Your task to perform on an android device: search for console tables on article.com Image 0: 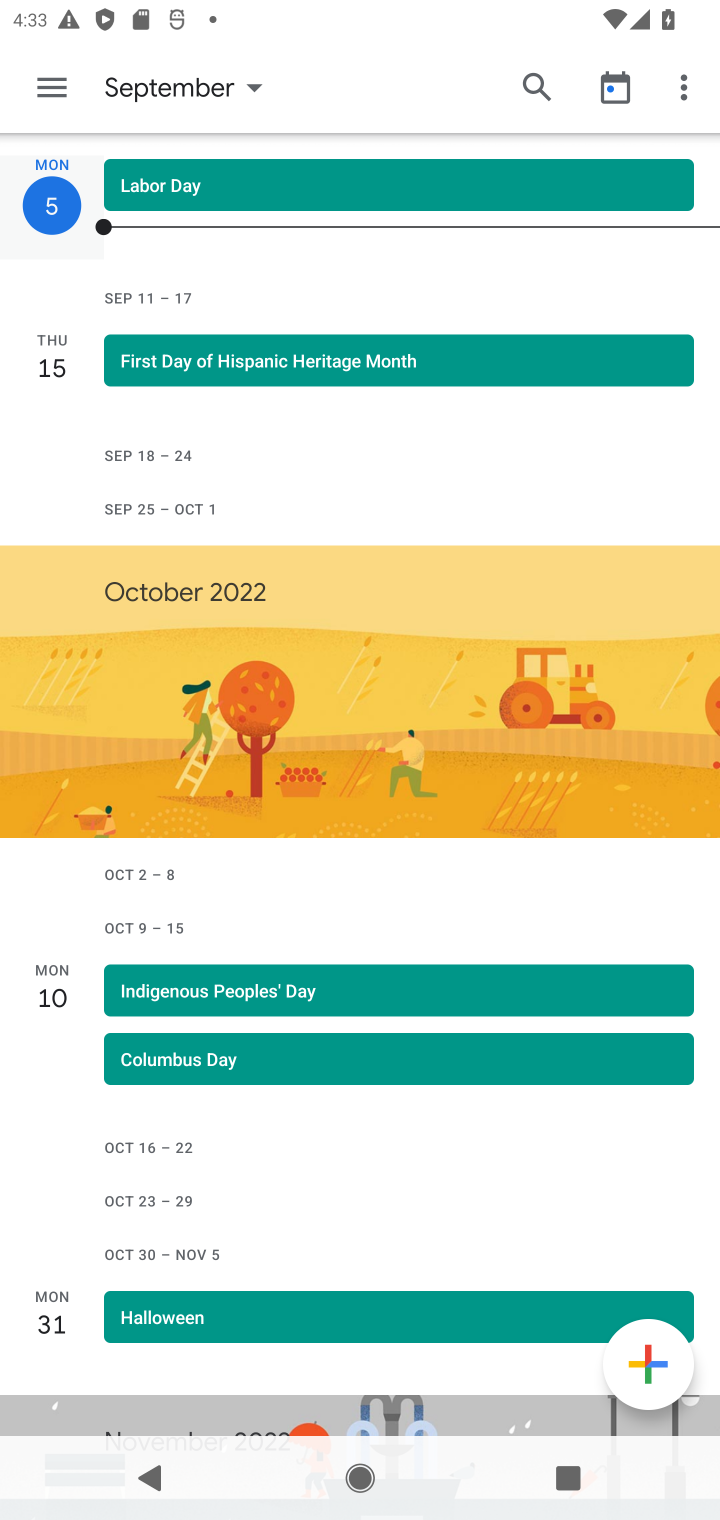
Step 0: press home button
Your task to perform on an android device: search for console tables on article.com Image 1: 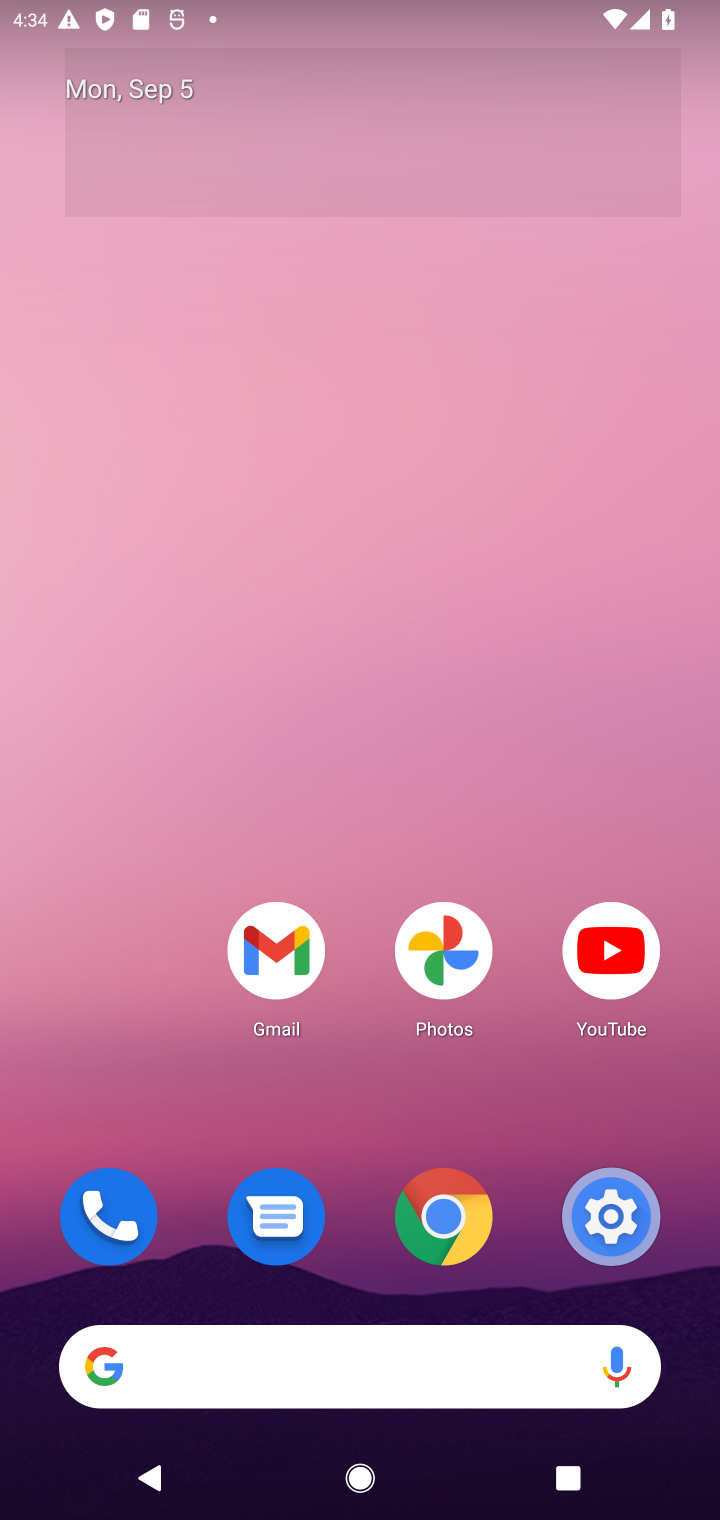
Step 1: click (90, 1359)
Your task to perform on an android device: search for console tables on article.com Image 2: 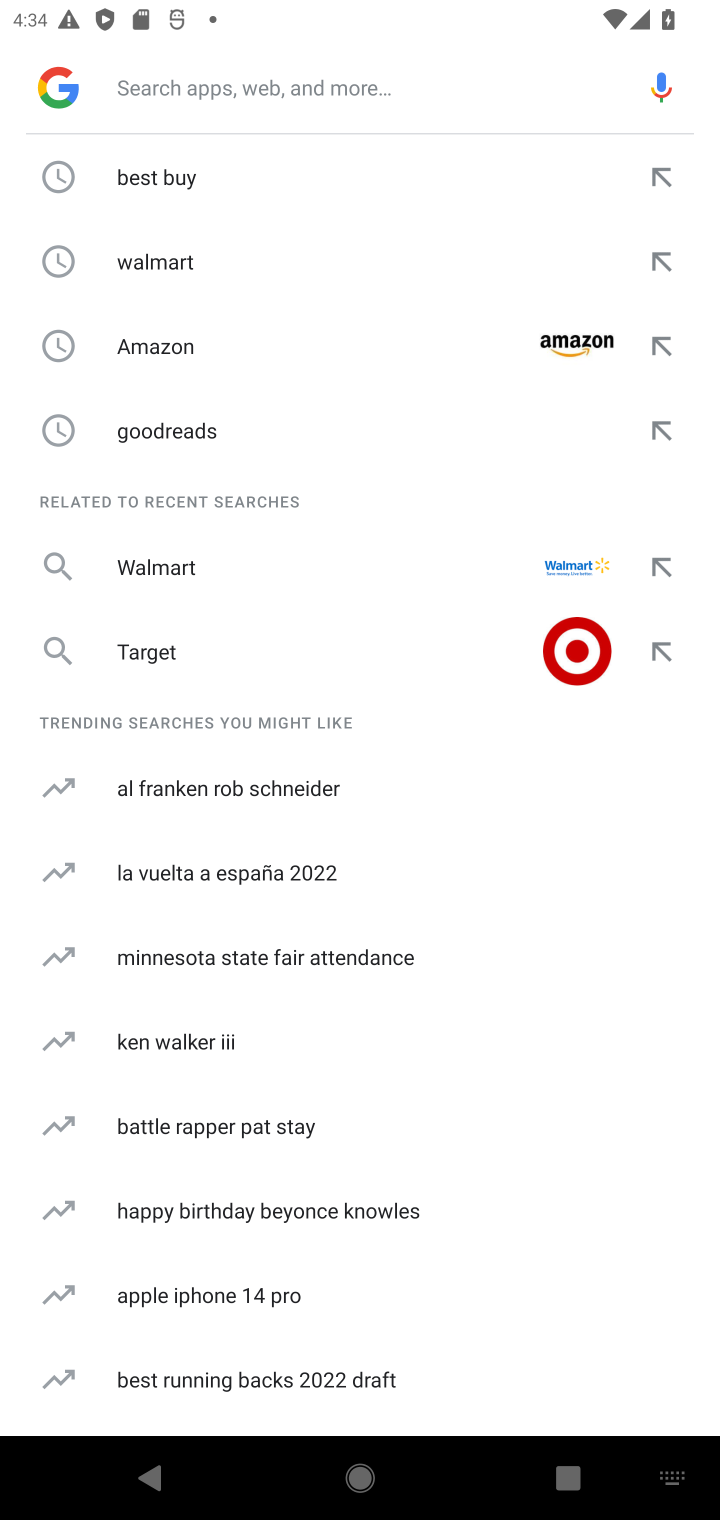
Step 2: type "article.com"
Your task to perform on an android device: search for console tables on article.com Image 3: 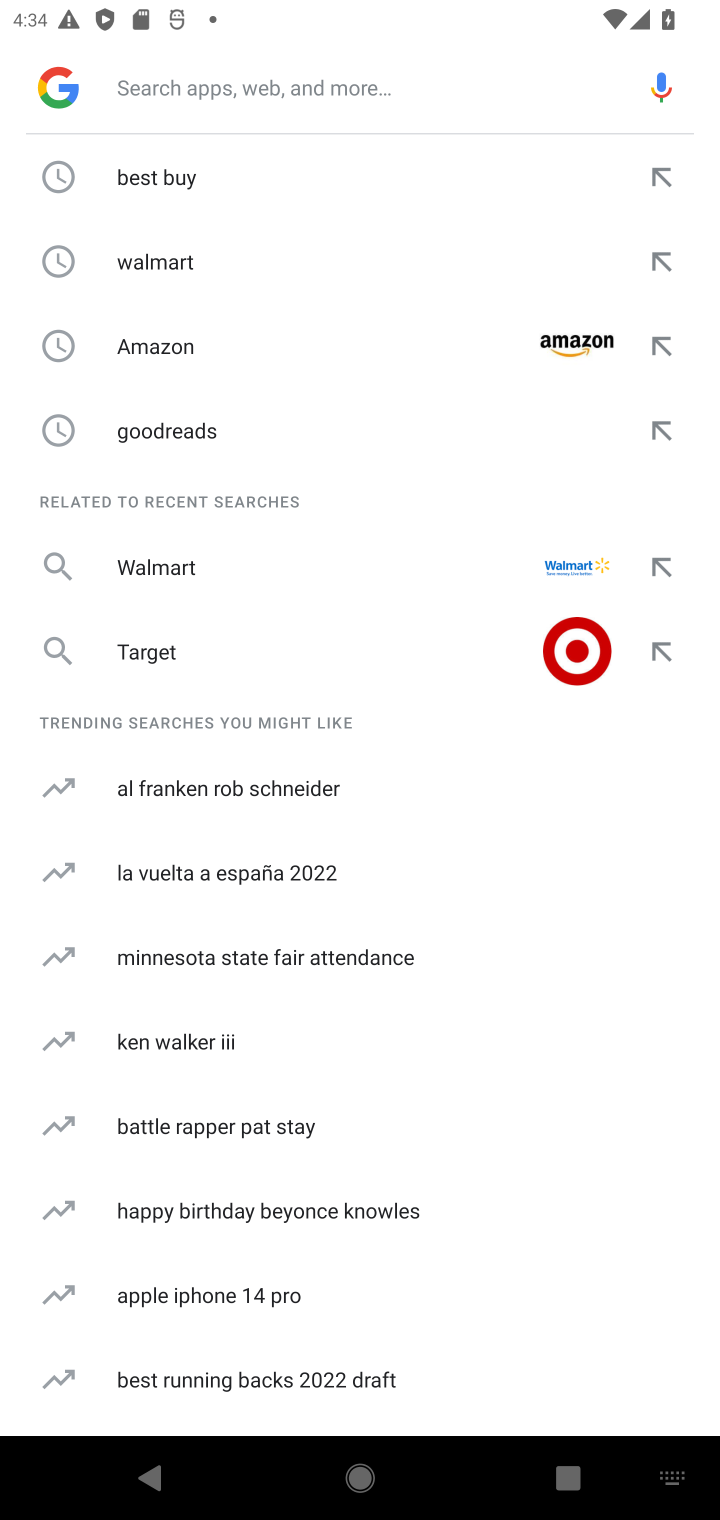
Step 3: click (151, 96)
Your task to perform on an android device: search for console tables on article.com Image 4: 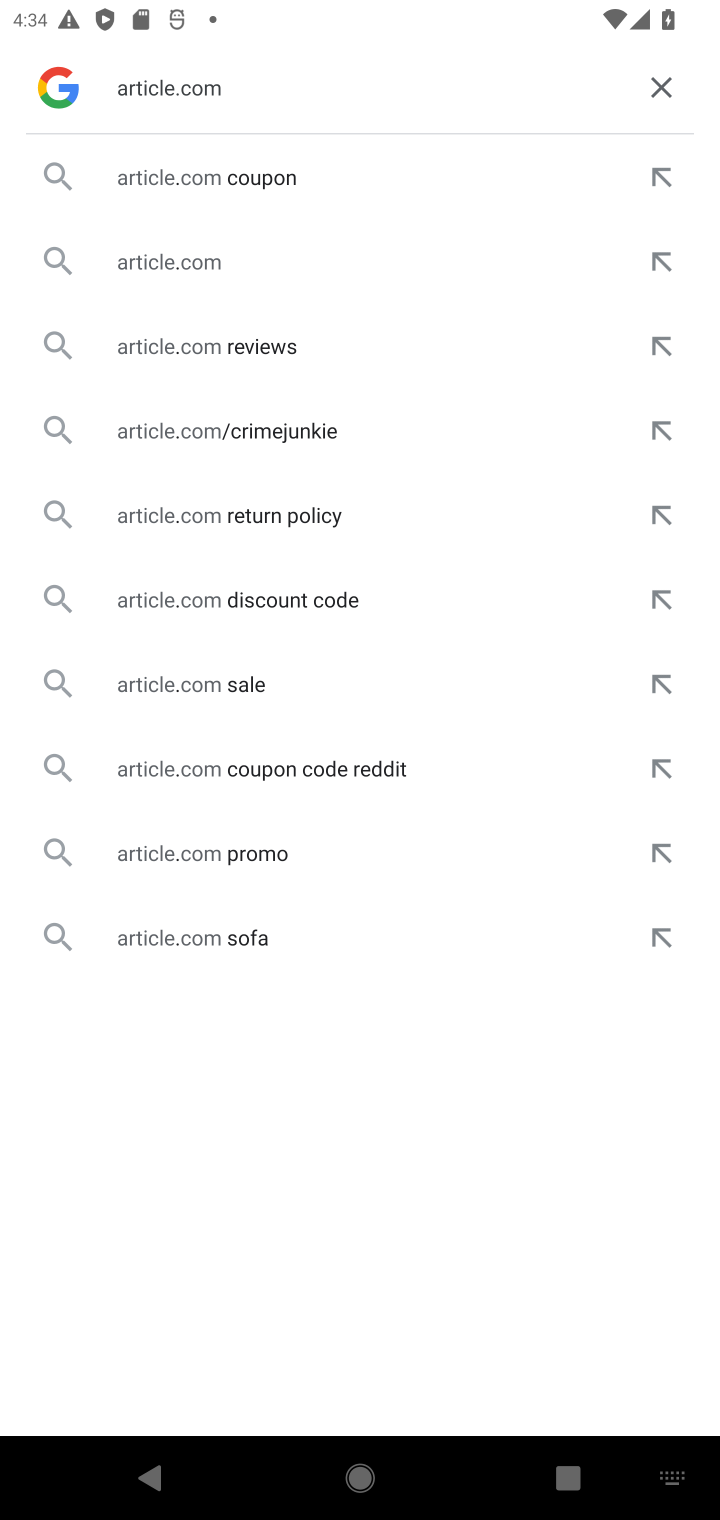
Step 4: press enter
Your task to perform on an android device: search for console tables on article.com Image 5: 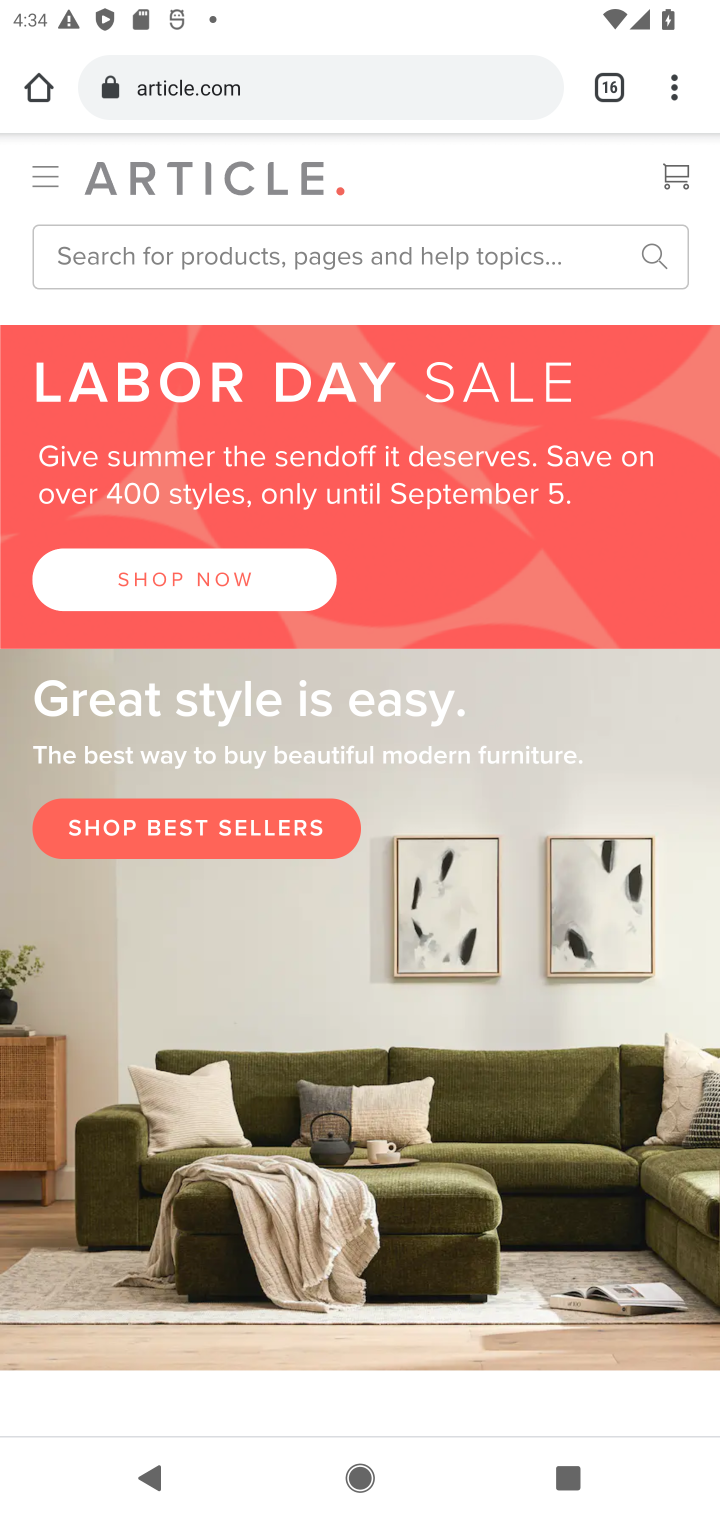
Step 5: task complete